Your task to perform on an android device: change the clock display to show seconds Image 0: 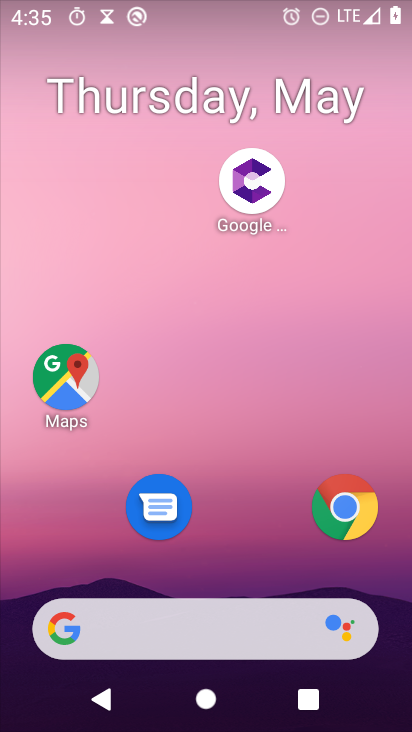
Step 0: drag from (254, 585) to (203, 184)
Your task to perform on an android device: change the clock display to show seconds Image 1: 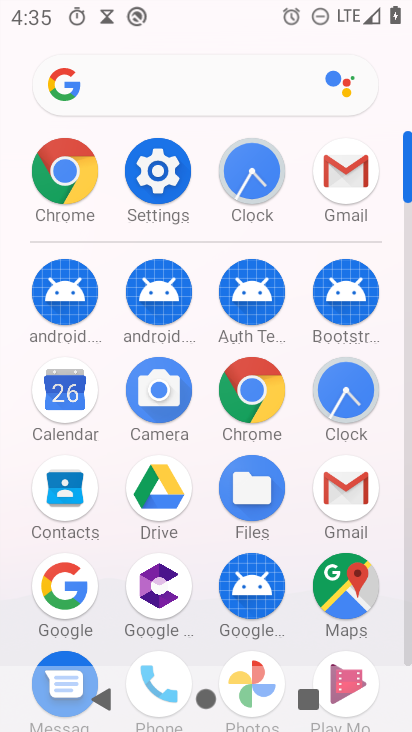
Step 1: click (254, 178)
Your task to perform on an android device: change the clock display to show seconds Image 2: 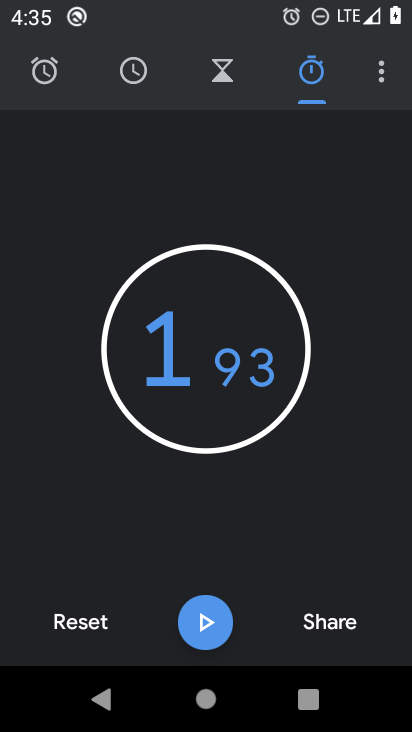
Step 2: click (382, 70)
Your task to perform on an android device: change the clock display to show seconds Image 3: 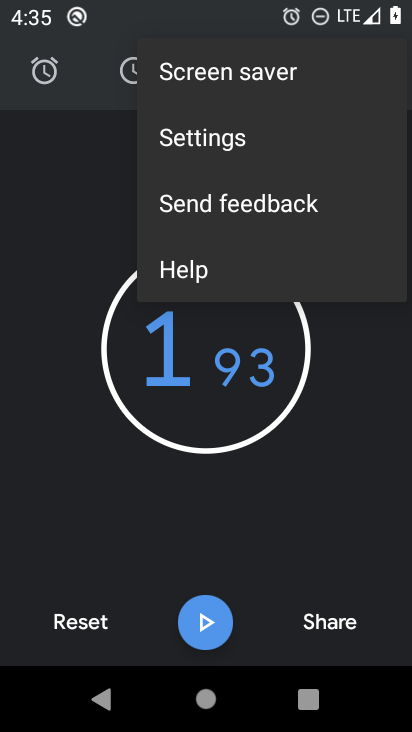
Step 3: click (195, 131)
Your task to perform on an android device: change the clock display to show seconds Image 4: 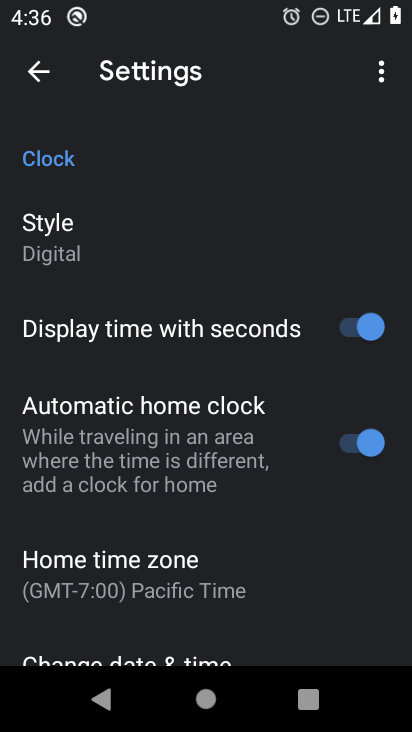
Step 4: task complete